Your task to perform on an android device: change keyboard looks Image 0: 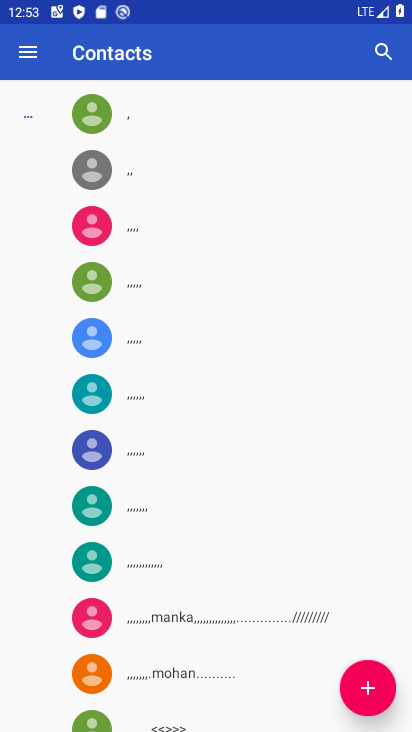
Step 0: press home button
Your task to perform on an android device: change keyboard looks Image 1: 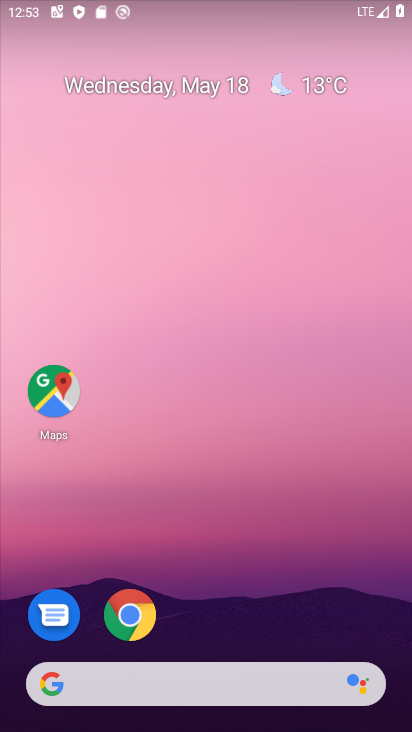
Step 1: drag from (180, 688) to (234, 198)
Your task to perform on an android device: change keyboard looks Image 2: 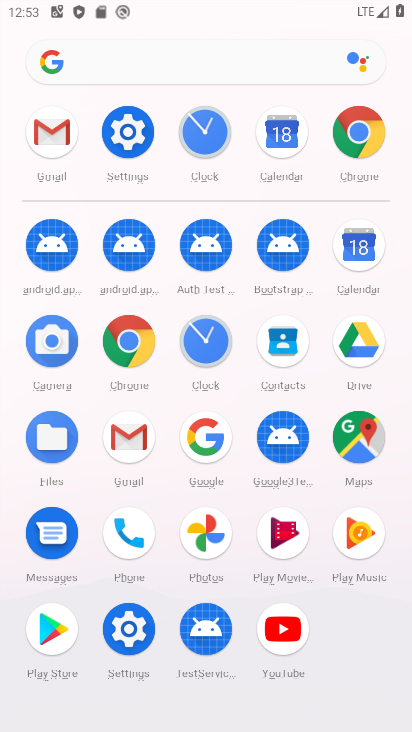
Step 2: click (135, 143)
Your task to perform on an android device: change keyboard looks Image 3: 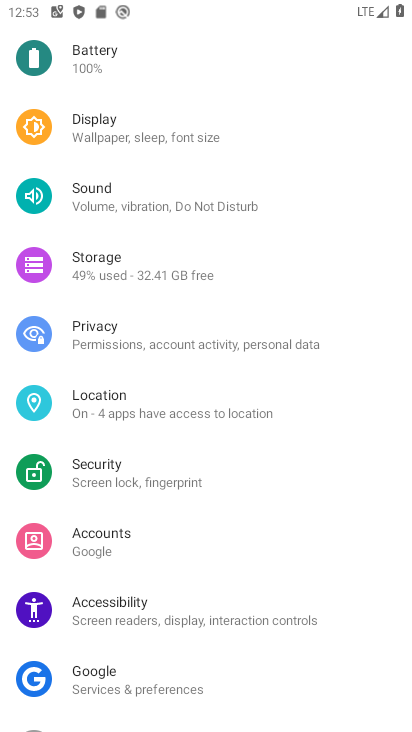
Step 3: drag from (229, 571) to (252, 262)
Your task to perform on an android device: change keyboard looks Image 4: 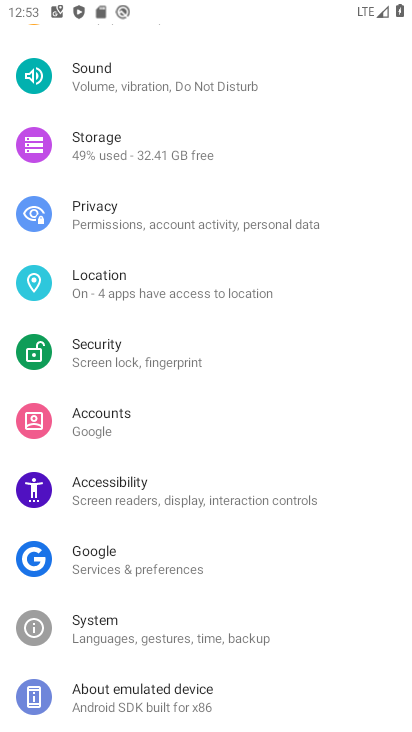
Step 4: click (105, 630)
Your task to perform on an android device: change keyboard looks Image 5: 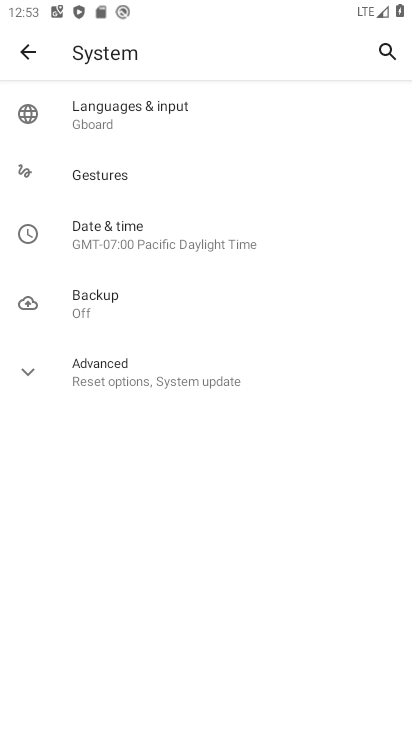
Step 5: click (120, 121)
Your task to perform on an android device: change keyboard looks Image 6: 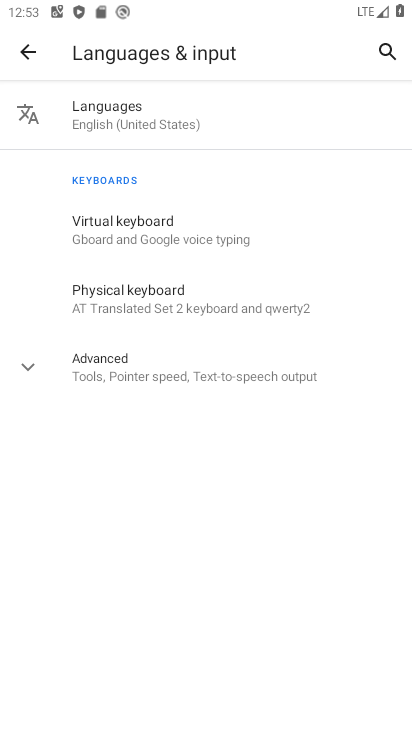
Step 6: click (137, 228)
Your task to perform on an android device: change keyboard looks Image 7: 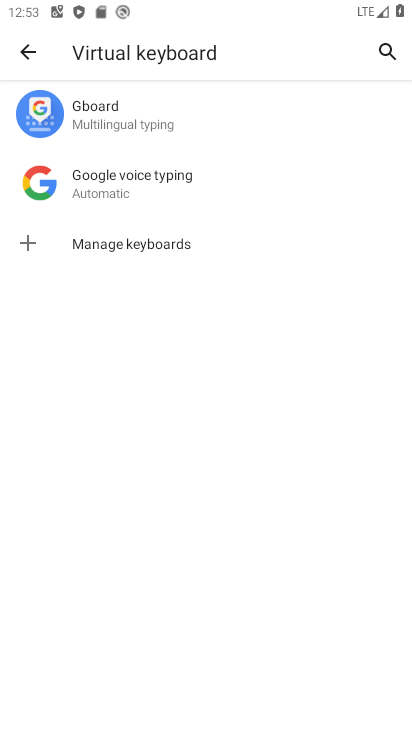
Step 7: click (125, 112)
Your task to perform on an android device: change keyboard looks Image 8: 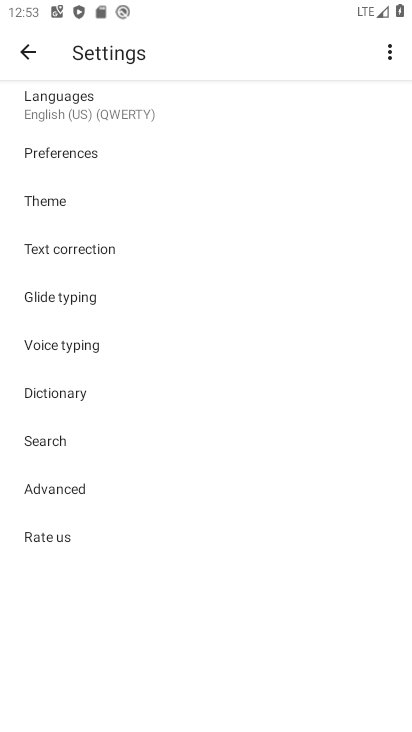
Step 8: click (57, 196)
Your task to perform on an android device: change keyboard looks Image 9: 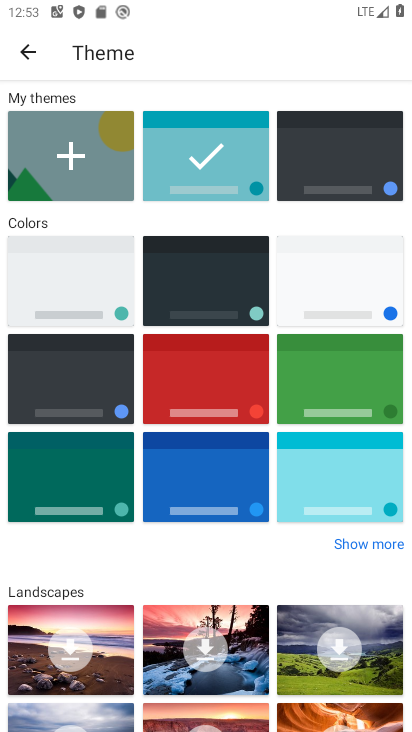
Step 9: click (326, 285)
Your task to perform on an android device: change keyboard looks Image 10: 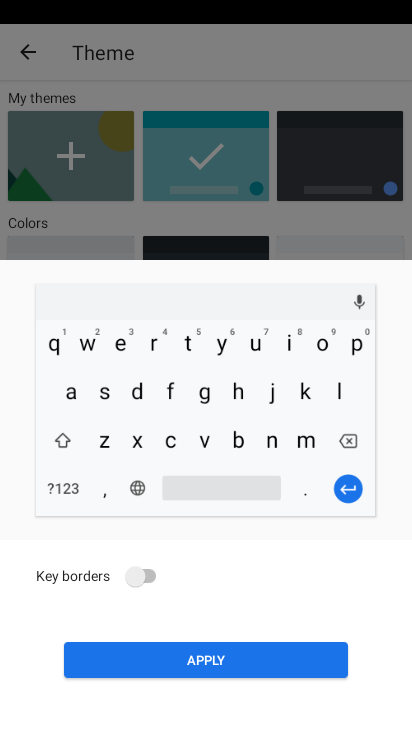
Step 10: click (238, 657)
Your task to perform on an android device: change keyboard looks Image 11: 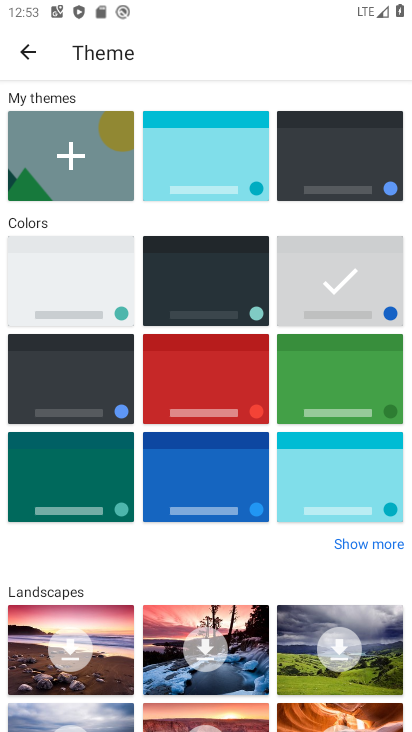
Step 11: task complete